Your task to perform on an android device: What is the recent news? Image 0: 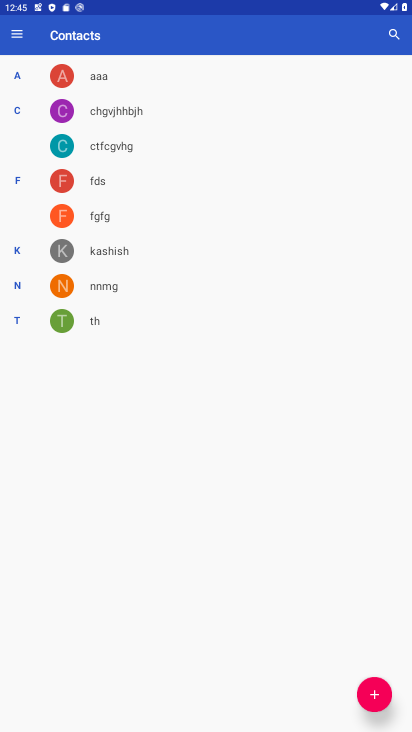
Step 0: press home button
Your task to perform on an android device: What is the recent news? Image 1: 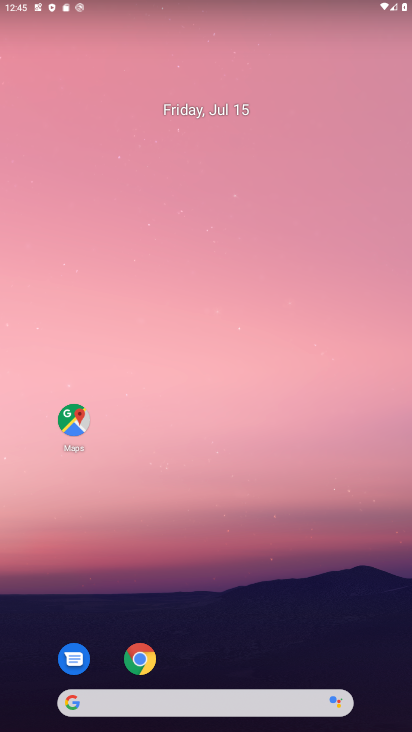
Step 1: drag from (196, 633) to (265, 88)
Your task to perform on an android device: What is the recent news? Image 2: 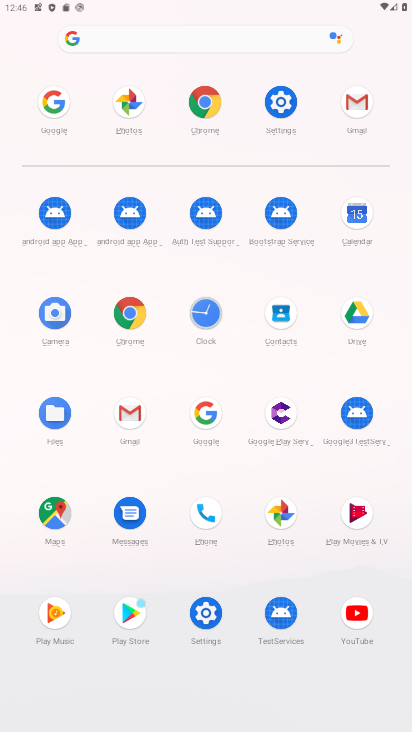
Step 2: click (196, 420)
Your task to perform on an android device: What is the recent news? Image 3: 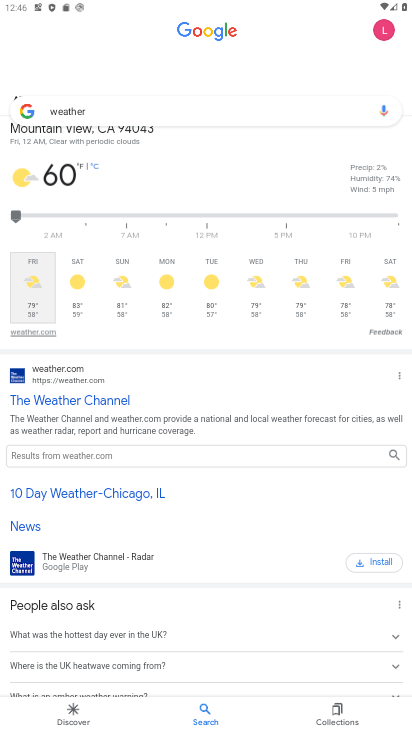
Step 3: click (138, 111)
Your task to perform on an android device: What is the recent news? Image 4: 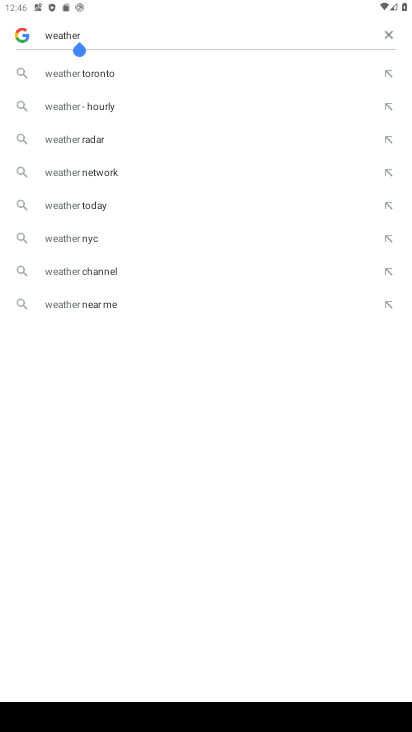
Step 4: click (385, 46)
Your task to perform on an android device: What is the recent news? Image 5: 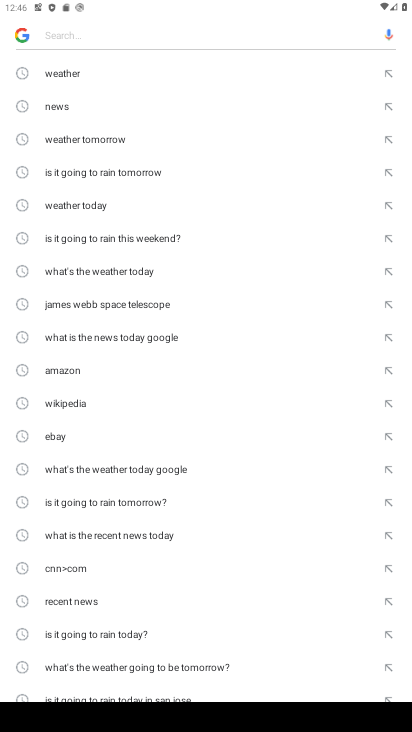
Step 5: click (68, 103)
Your task to perform on an android device: What is the recent news? Image 6: 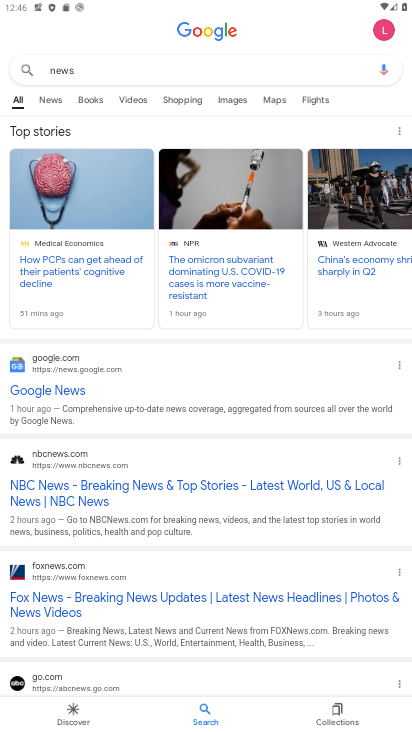
Step 6: click (57, 105)
Your task to perform on an android device: What is the recent news? Image 7: 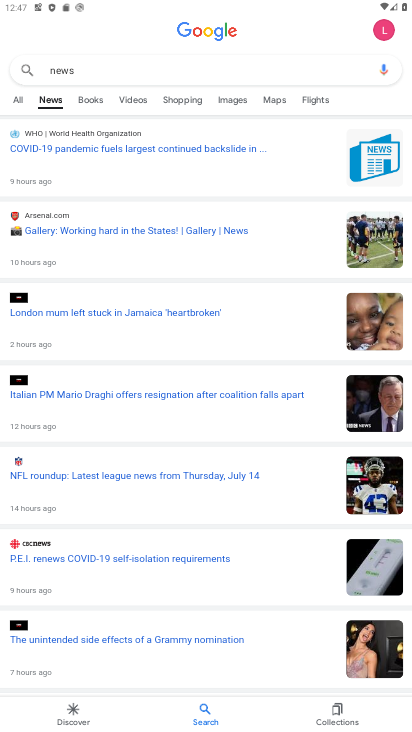
Step 7: task complete